Your task to perform on an android device: Open Google Chrome and open the bookmarks view Image 0: 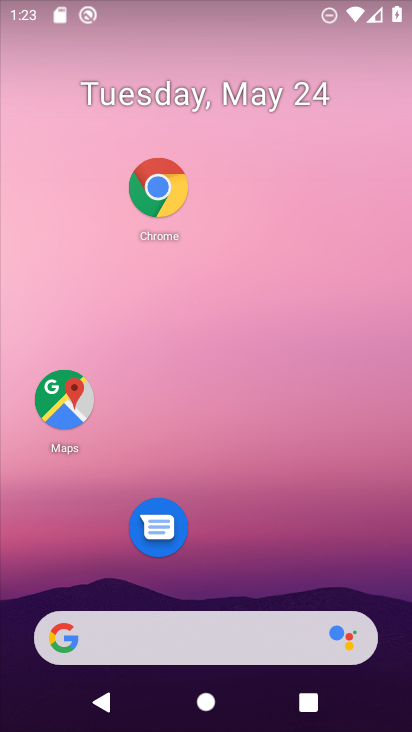
Step 0: click (156, 196)
Your task to perform on an android device: Open Google Chrome and open the bookmarks view Image 1: 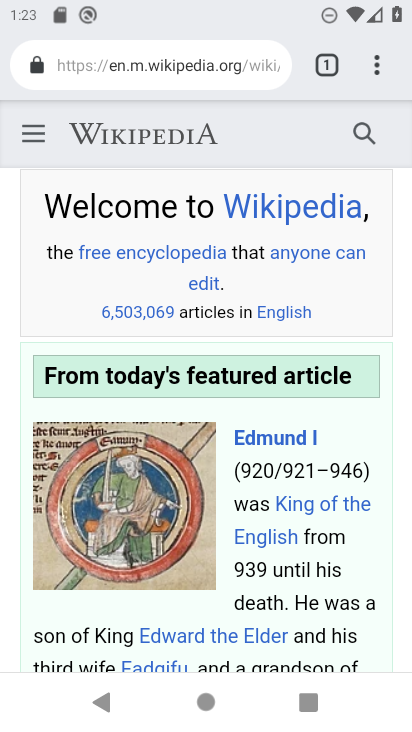
Step 1: click (380, 65)
Your task to perform on an android device: Open Google Chrome and open the bookmarks view Image 2: 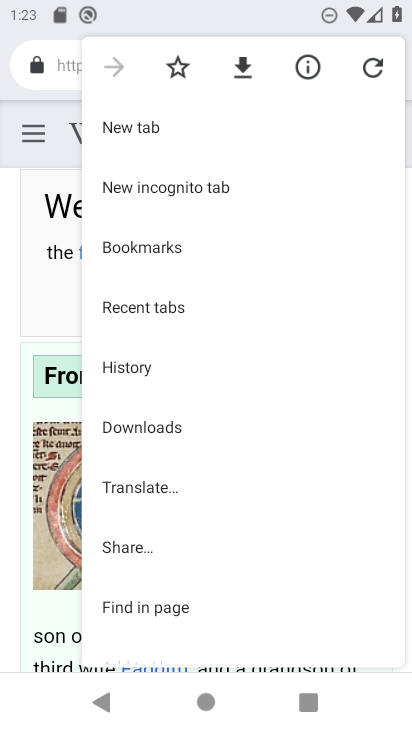
Step 2: click (162, 261)
Your task to perform on an android device: Open Google Chrome and open the bookmarks view Image 3: 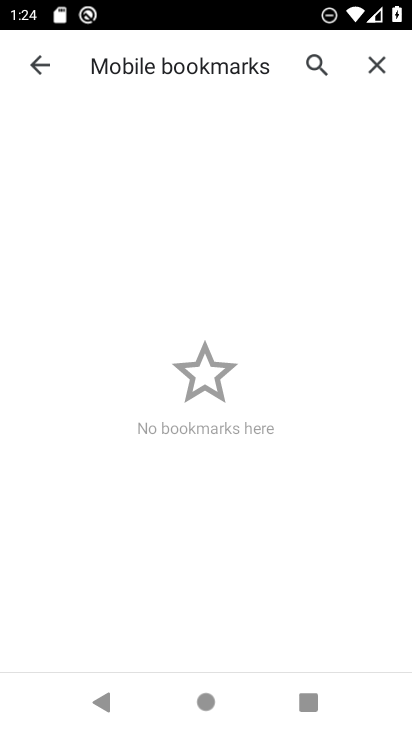
Step 3: task complete